Your task to perform on an android device: Look up the best rated wireless earbuds on Ali Express Image 0: 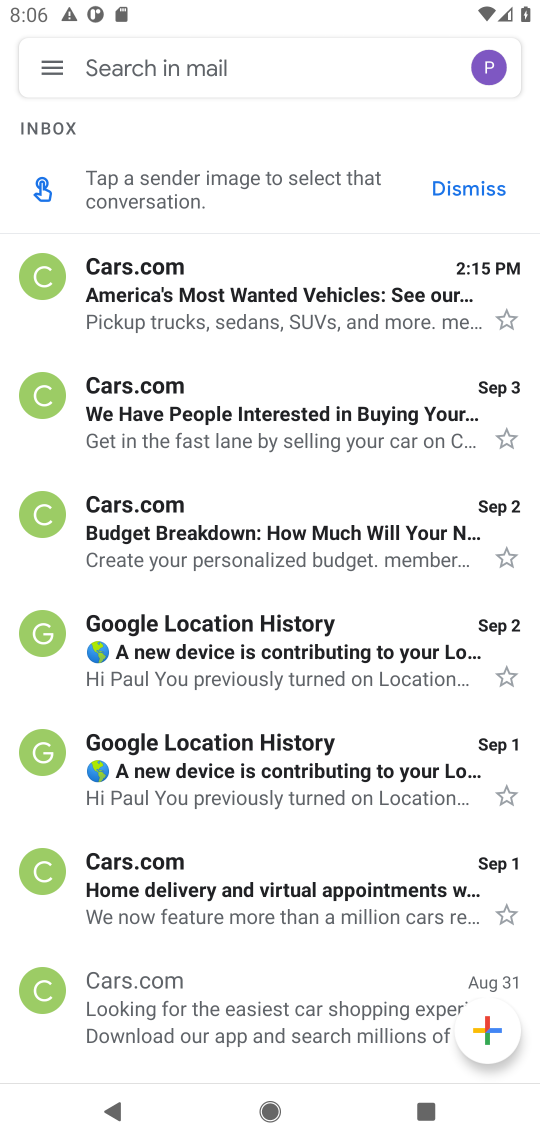
Step 0: click (301, 274)
Your task to perform on an android device: Look up the best rated wireless earbuds on Ali Express Image 1: 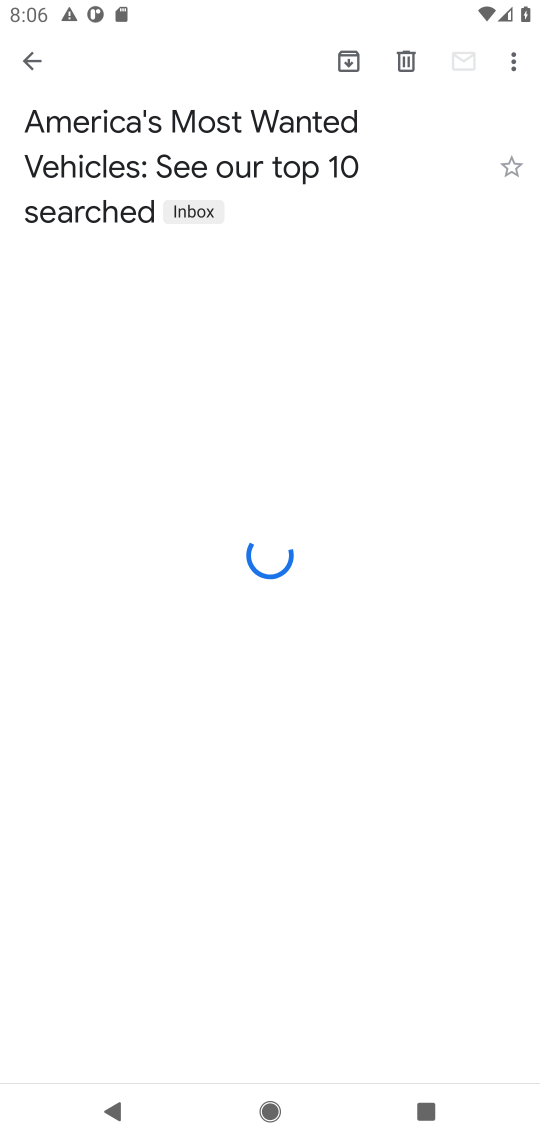
Step 1: click (411, 75)
Your task to perform on an android device: Look up the best rated wireless earbuds on Ali Express Image 2: 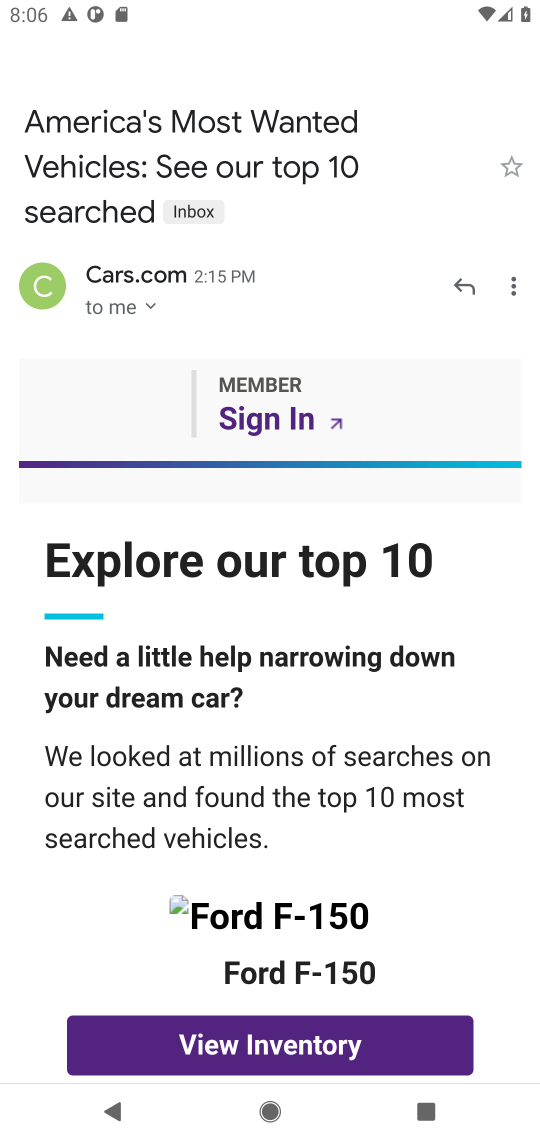
Step 2: task complete